Your task to perform on an android device: Go to location settings Image 0: 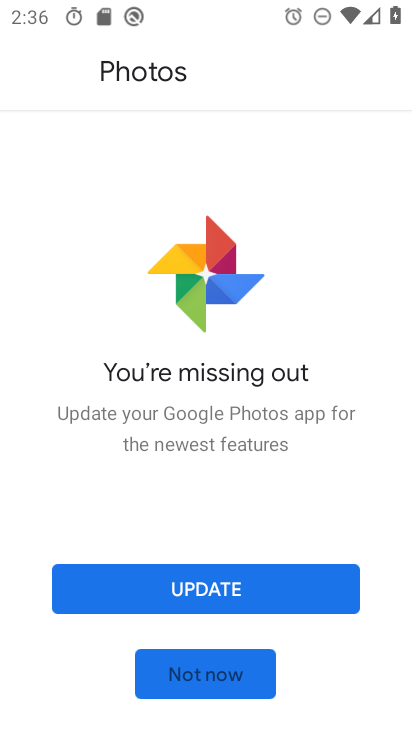
Step 0: press home button
Your task to perform on an android device: Go to location settings Image 1: 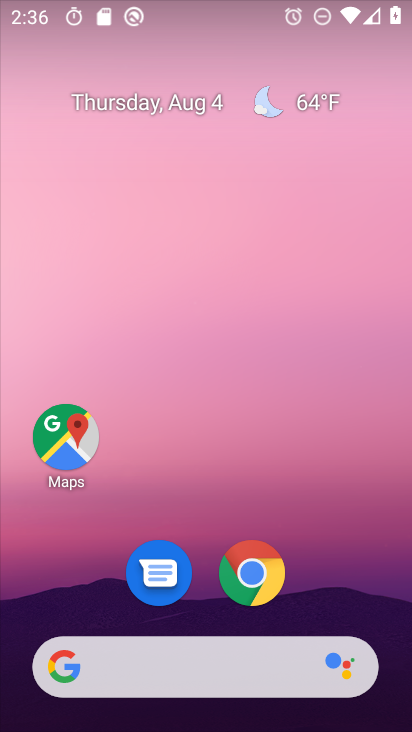
Step 1: drag from (347, 611) to (358, 101)
Your task to perform on an android device: Go to location settings Image 2: 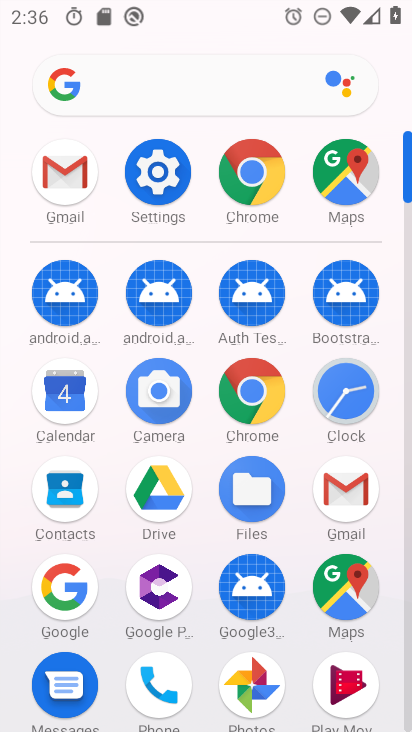
Step 2: click (164, 156)
Your task to perform on an android device: Go to location settings Image 3: 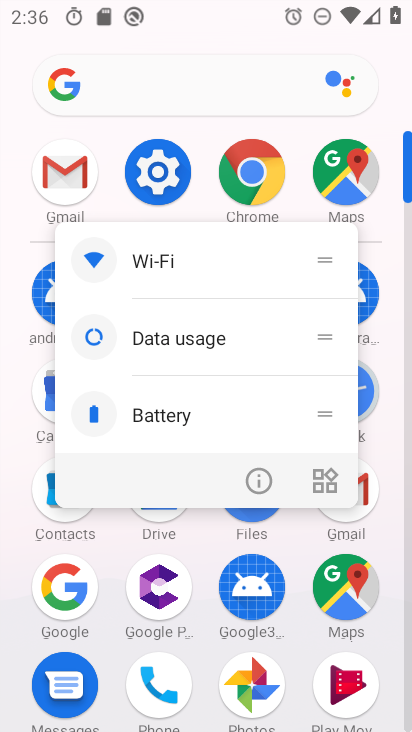
Step 3: click (160, 167)
Your task to perform on an android device: Go to location settings Image 4: 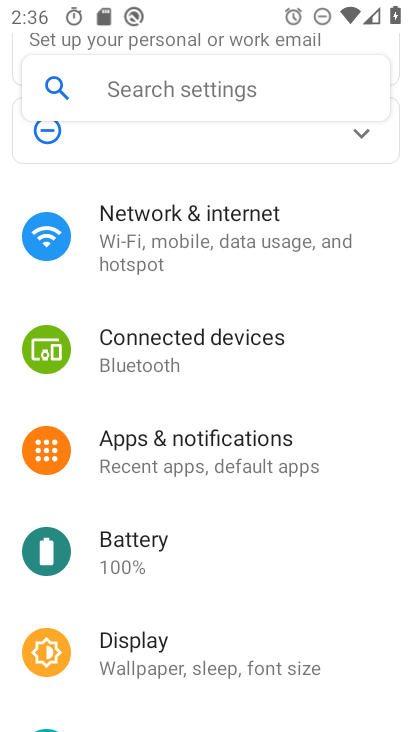
Step 4: drag from (274, 571) to (292, 178)
Your task to perform on an android device: Go to location settings Image 5: 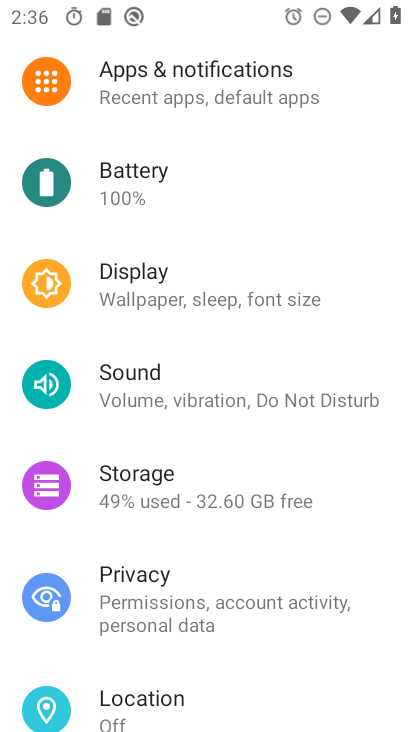
Step 5: click (117, 695)
Your task to perform on an android device: Go to location settings Image 6: 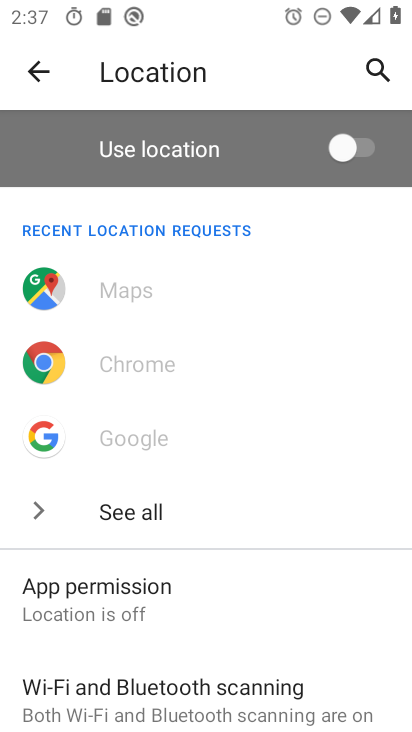
Step 6: task complete